Your task to perform on an android device: Go to Wikipedia Image 0: 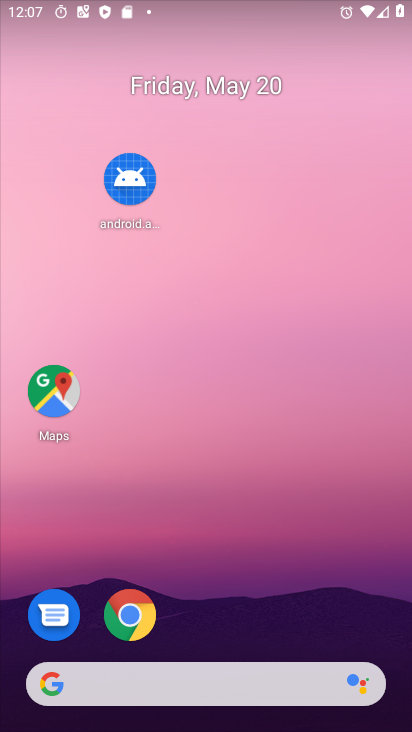
Step 0: click (135, 618)
Your task to perform on an android device: Go to Wikipedia Image 1: 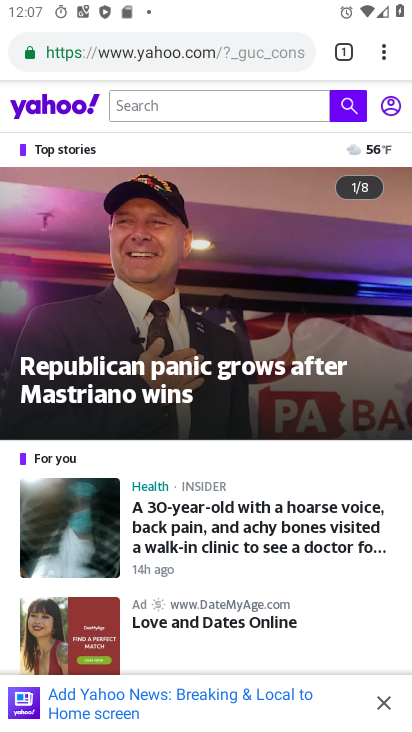
Step 1: click (346, 42)
Your task to perform on an android device: Go to Wikipedia Image 2: 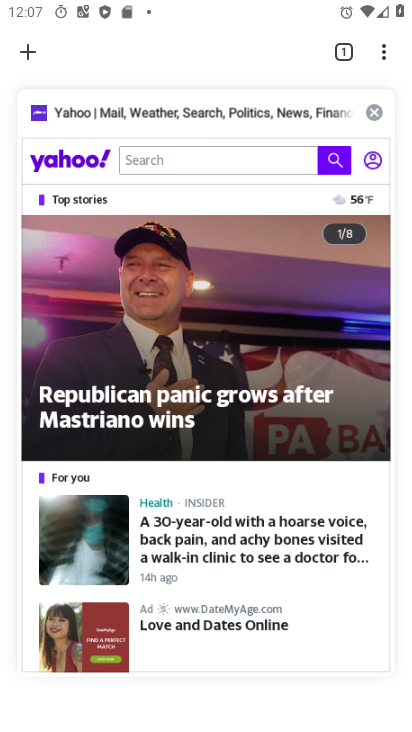
Step 2: click (372, 114)
Your task to perform on an android device: Go to Wikipedia Image 3: 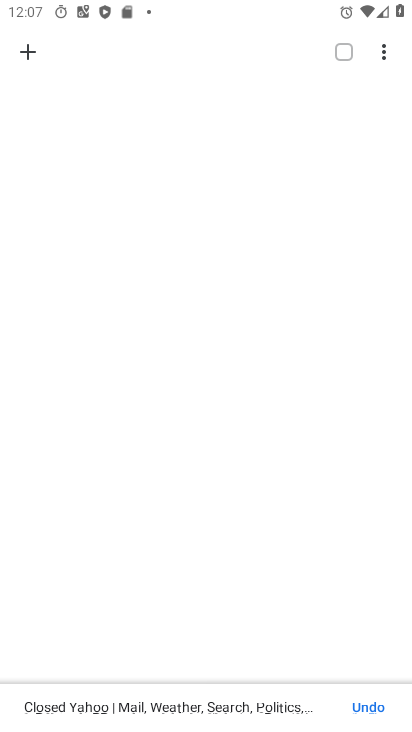
Step 3: click (28, 57)
Your task to perform on an android device: Go to Wikipedia Image 4: 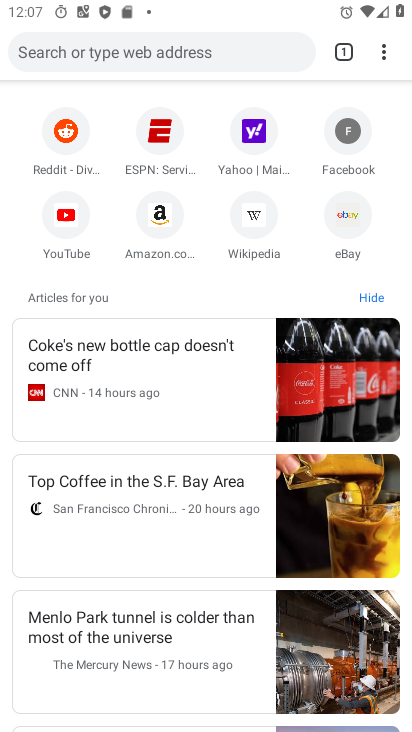
Step 4: click (252, 218)
Your task to perform on an android device: Go to Wikipedia Image 5: 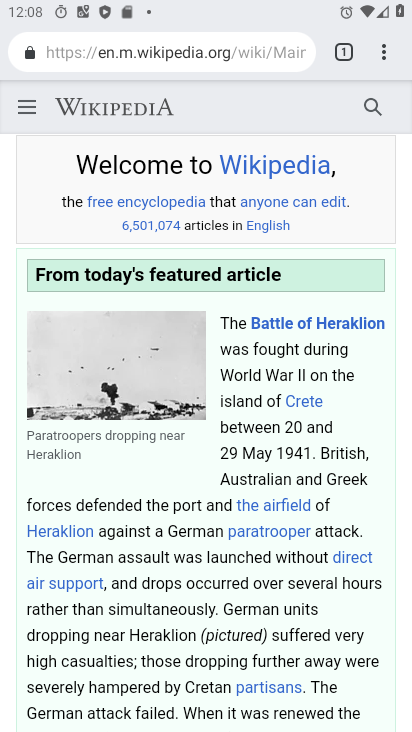
Step 5: task complete